Your task to perform on an android device: Open the stopwatch Image 0: 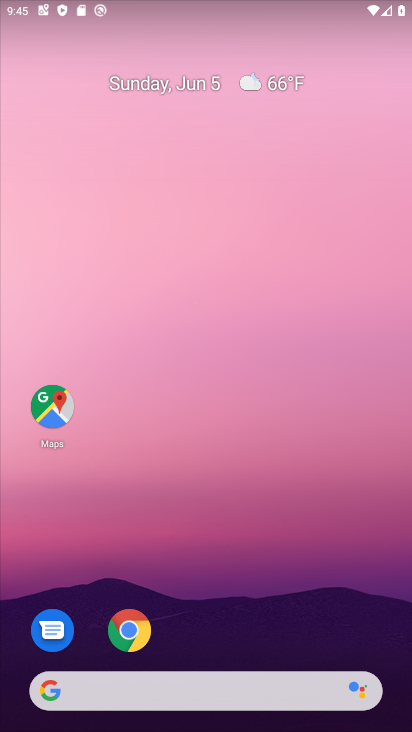
Step 0: drag from (213, 728) to (195, 53)
Your task to perform on an android device: Open the stopwatch Image 1: 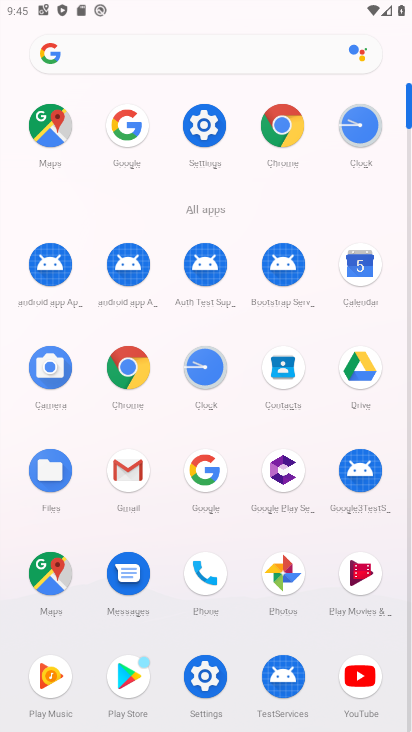
Step 1: click (205, 370)
Your task to perform on an android device: Open the stopwatch Image 2: 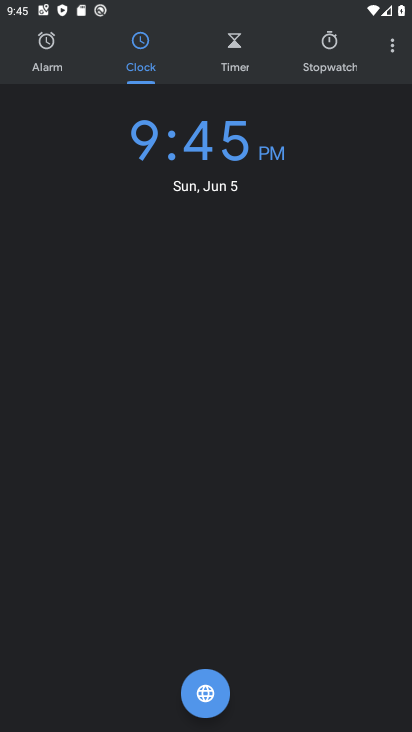
Step 2: click (326, 52)
Your task to perform on an android device: Open the stopwatch Image 3: 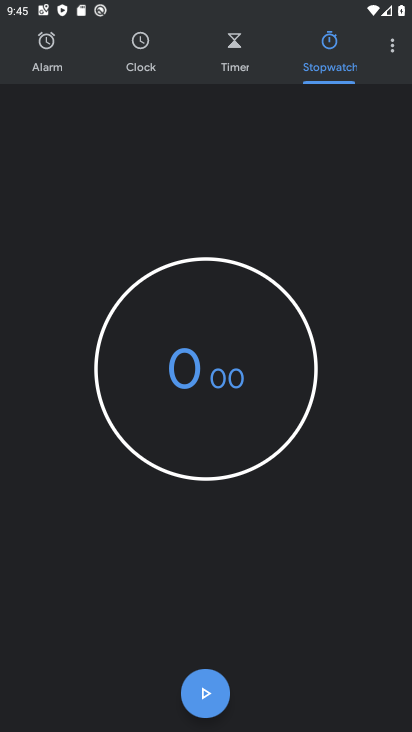
Step 3: click (192, 378)
Your task to perform on an android device: Open the stopwatch Image 4: 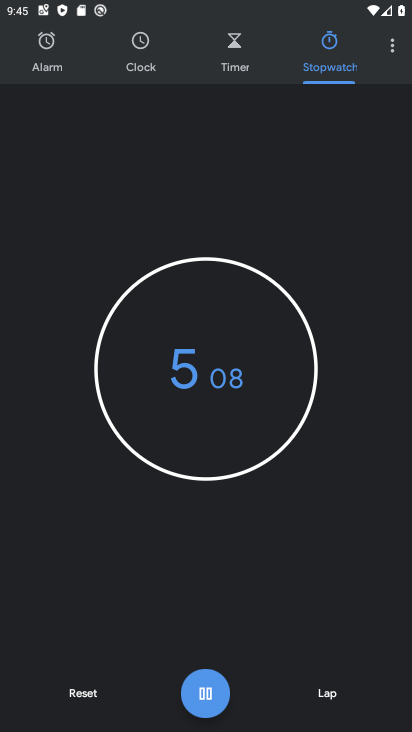
Step 4: type "8765"
Your task to perform on an android device: Open the stopwatch Image 5: 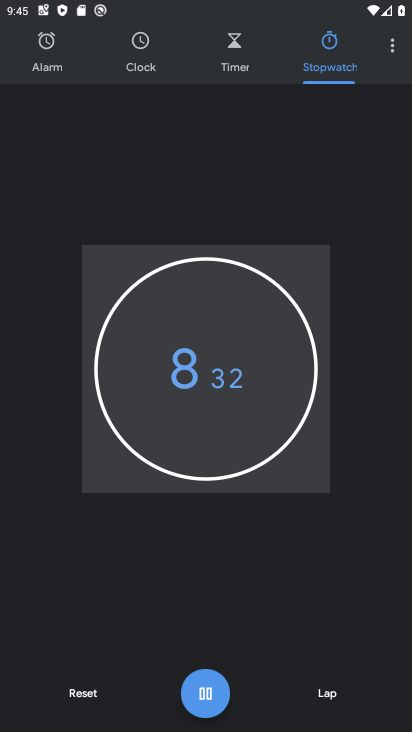
Step 5: task complete